Your task to perform on an android device: Open Google Image 0: 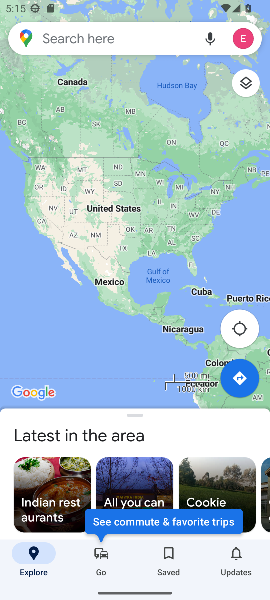
Step 0: press home button
Your task to perform on an android device: Open Google Image 1: 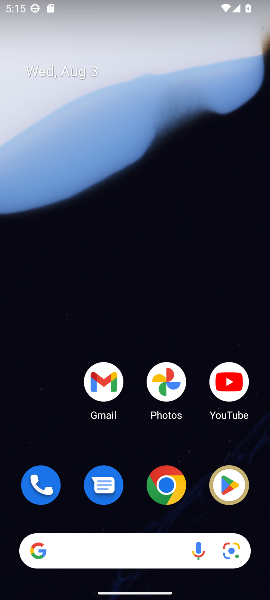
Step 1: click (39, 549)
Your task to perform on an android device: Open Google Image 2: 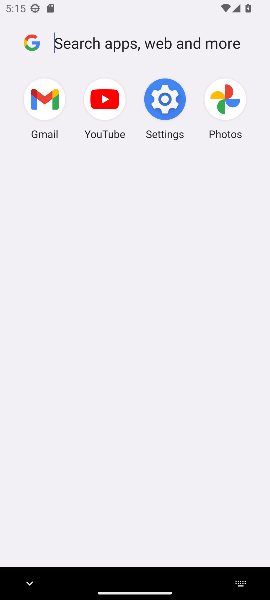
Step 2: click (37, 41)
Your task to perform on an android device: Open Google Image 3: 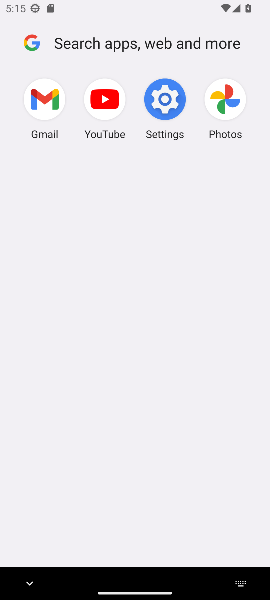
Step 3: click (36, 40)
Your task to perform on an android device: Open Google Image 4: 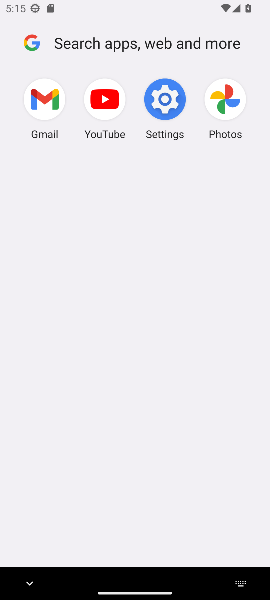
Step 4: type "google"
Your task to perform on an android device: Open Google Image 5: 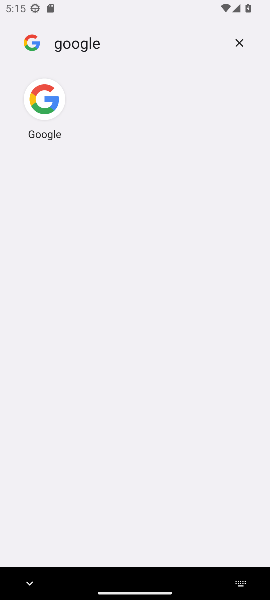
Step 5: click (54, 99)
Your task to perform on an android device: Open Google Image 6: 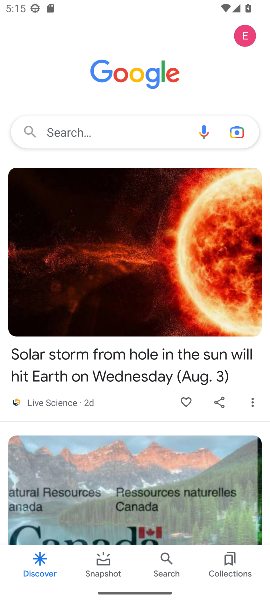
Step 6: task complete